Your task to perform on an android device: Open Google Image 0: 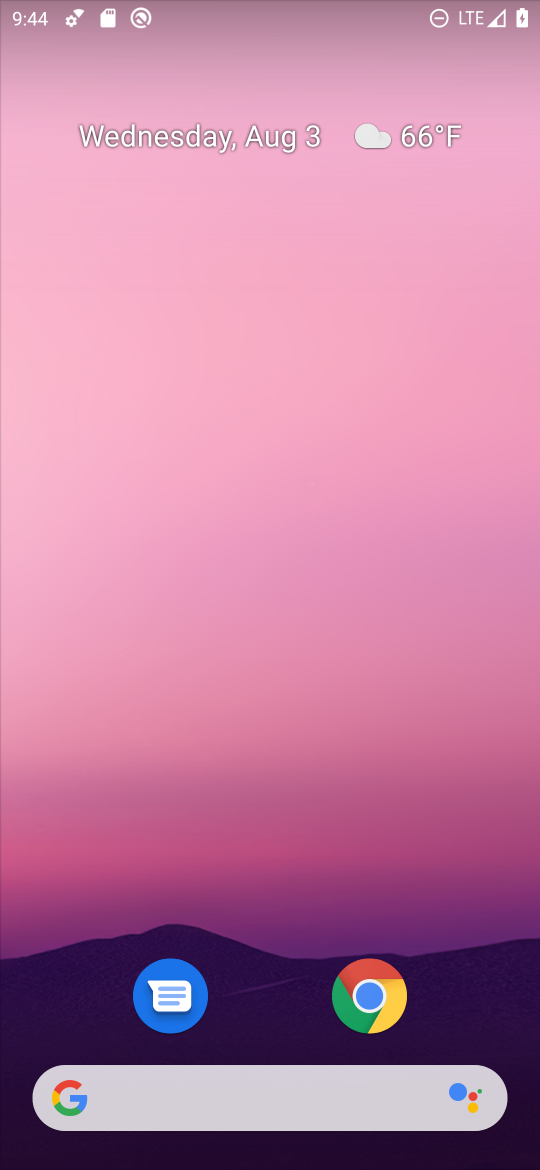
Step 0: click (226, 1109)
Your task to perform on an android device: Open Google Image 1: 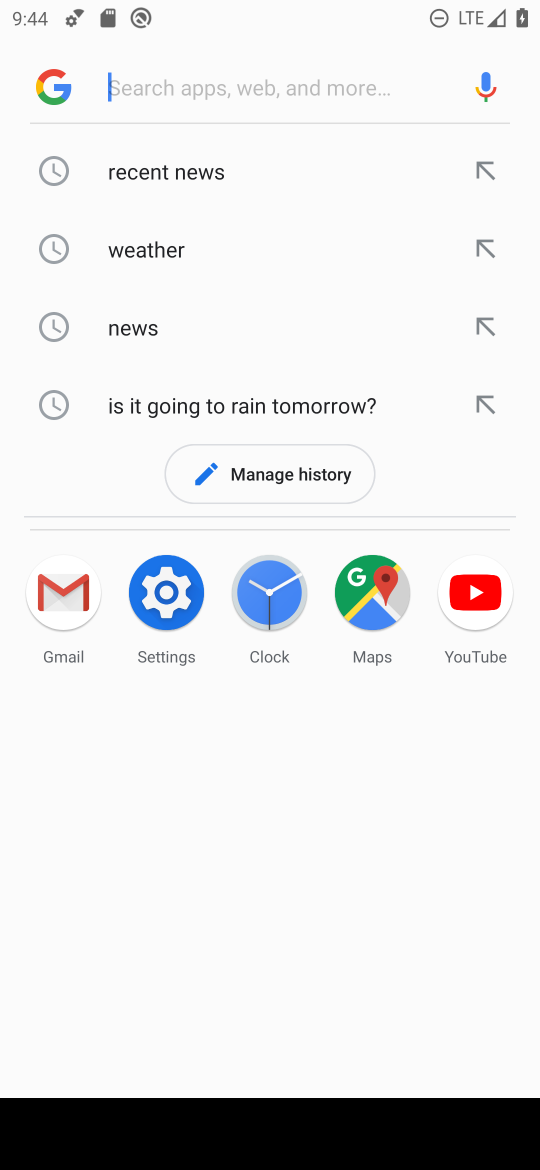
Step 1: click (55, 82)
Your task to perform on an android device: Open Google Image 2: 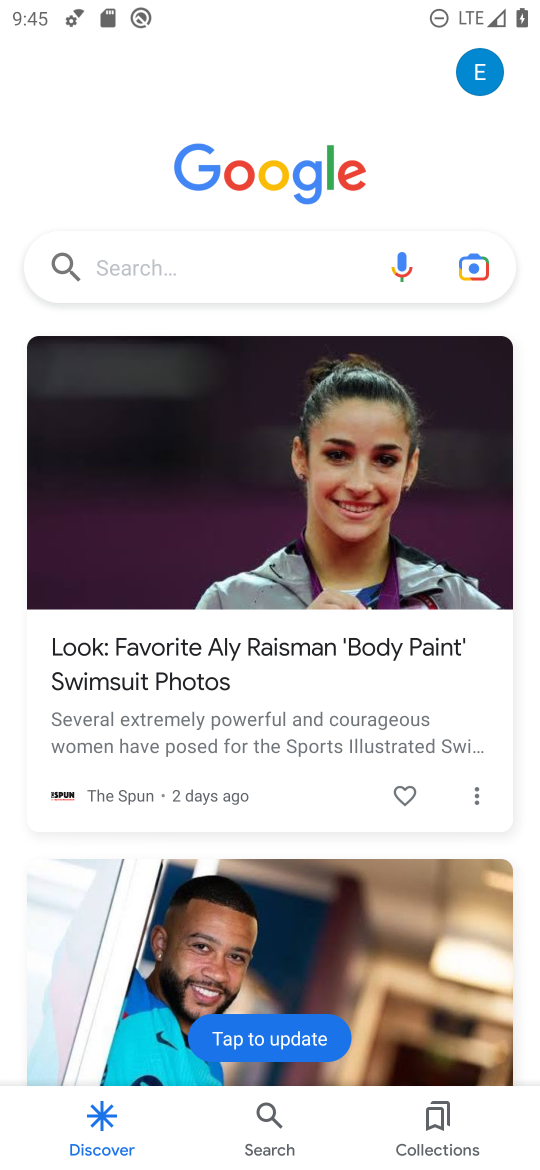
Step 2: task complete